Your task to perform on an android device: What's the weather? Image 0: 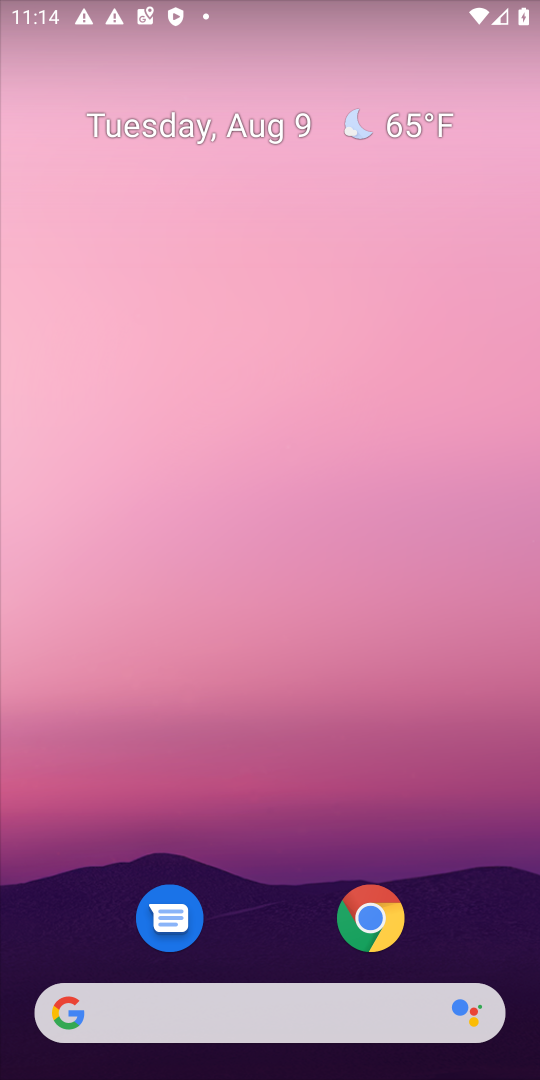
Step 0: click (415, 144)
Your task to perform on an android device: What's the weather? Image 1: 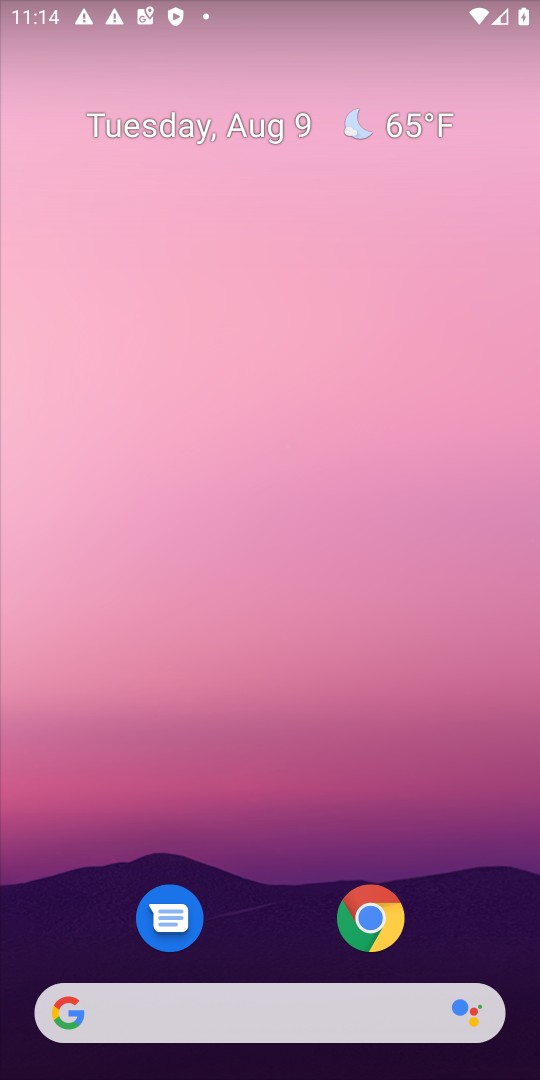
Step 1: click (408, 123)
Your task to perform on an android device: What's the weather? Image 2: 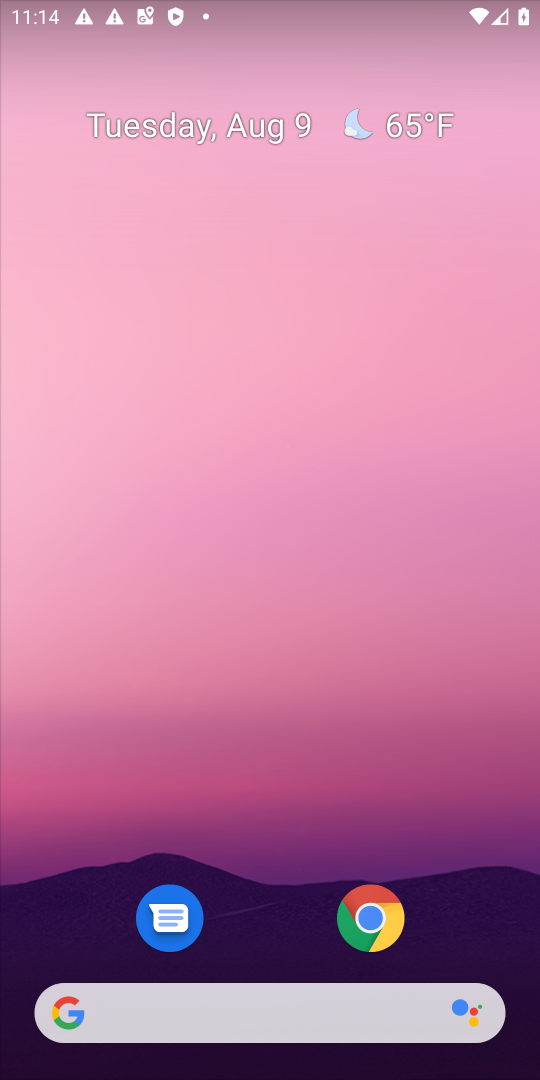
Step 2: drag from (280, 935) to (283, 167)
Your task to perform on an android device: What's the weather? Image 3: 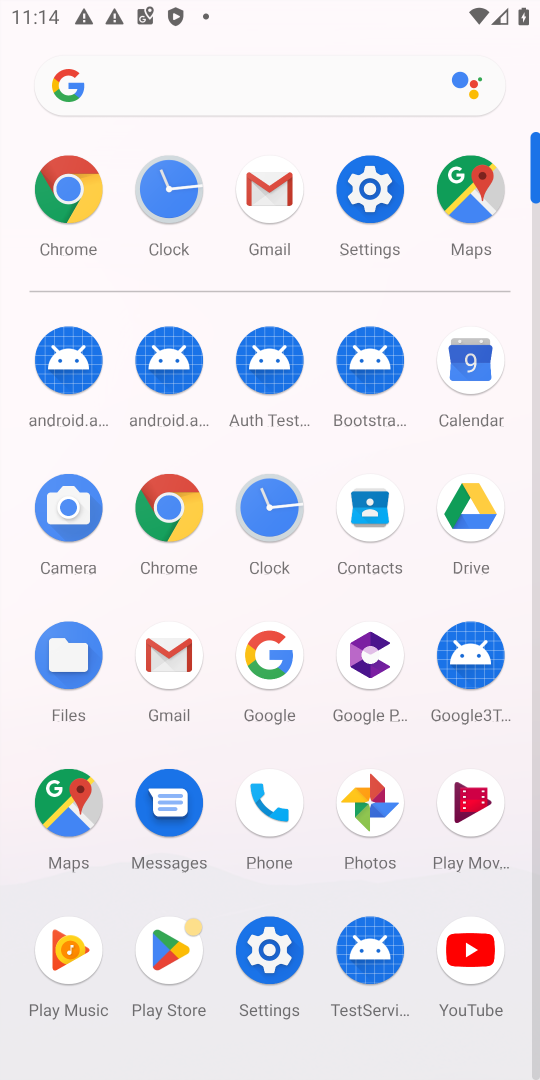
Step 3: click (159, 515)
Your task to perform on an android device: What's the weather? Image 4: 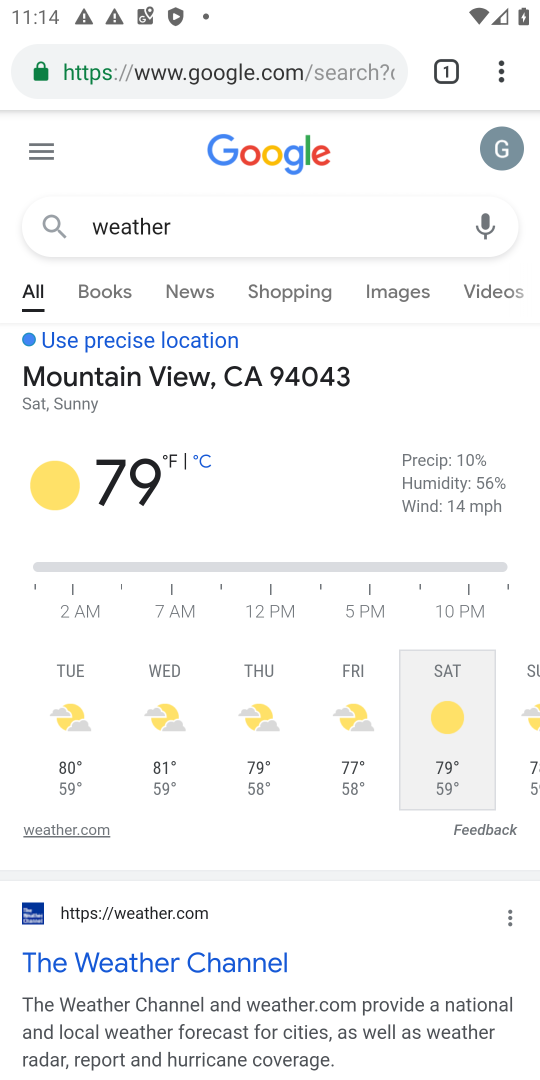
Step 4: click (77, 702)
Your task to perform on an android device: What's the weather? Image 5: 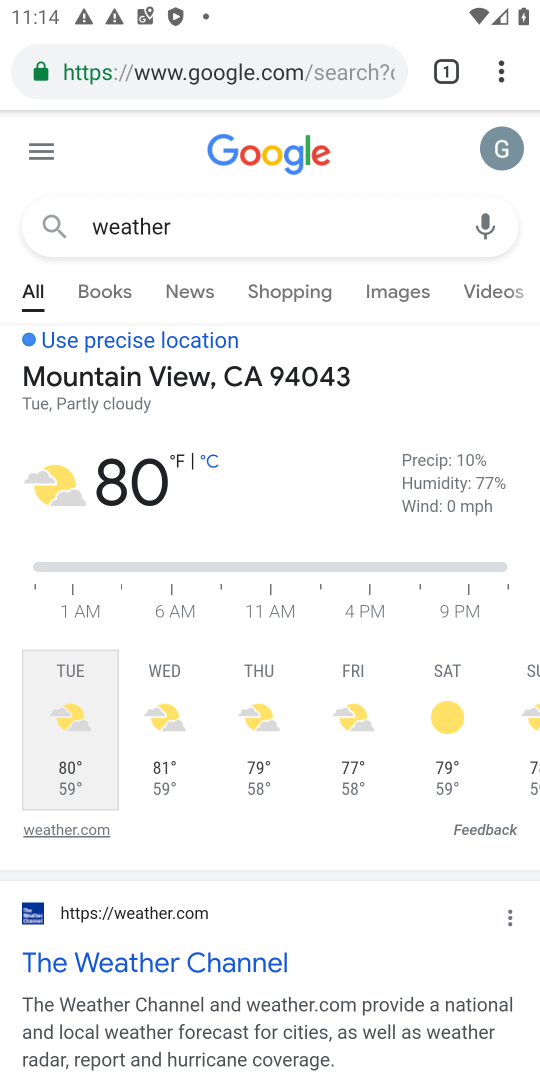
Step 5: task complete